Your task to perform on an android device: Open Reddit.com Image 0: 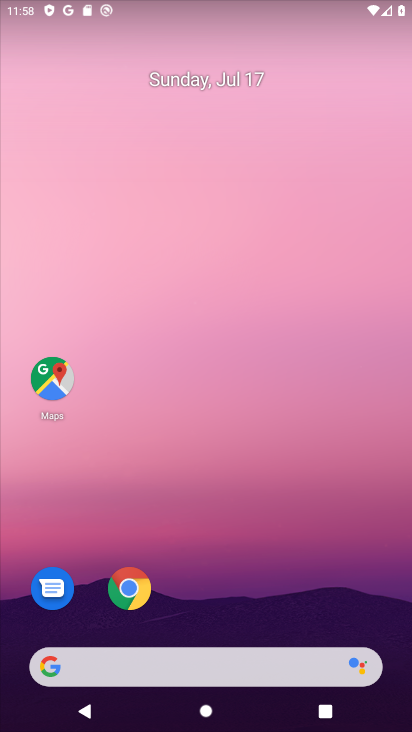
Step 0: click (126, 589)
Your task to perform on an android device: Open Reddit.com Image 1: 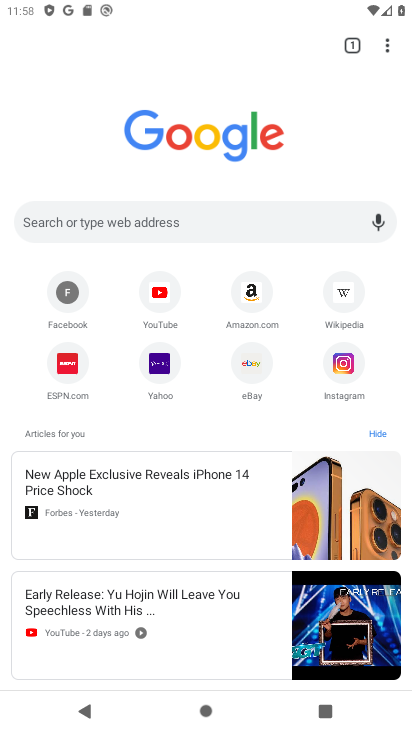
Step 1: click (180, 212)
Your task to perform on an android device: Open Reddit.com Image 2: 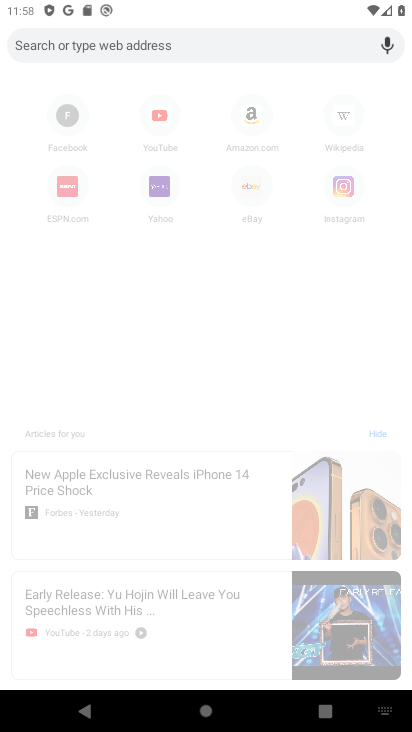
Step 2: type "Reddit.com"
Your task to perform on an android device: Open Reddit.com Image 3: 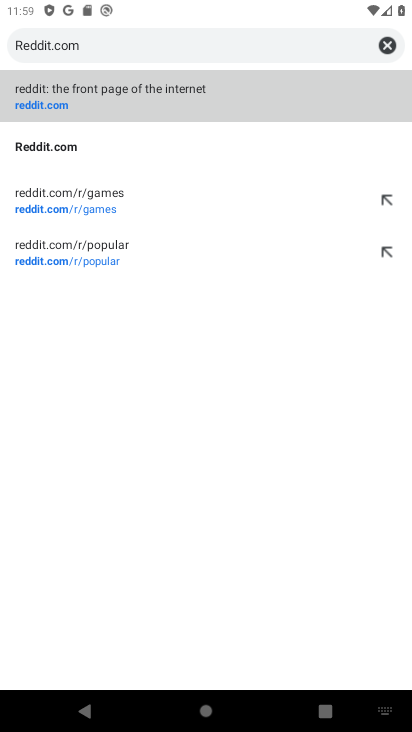
Step 3: click (277, 106)
Your task to perform on an android device: Open Reddit.com Image 4: 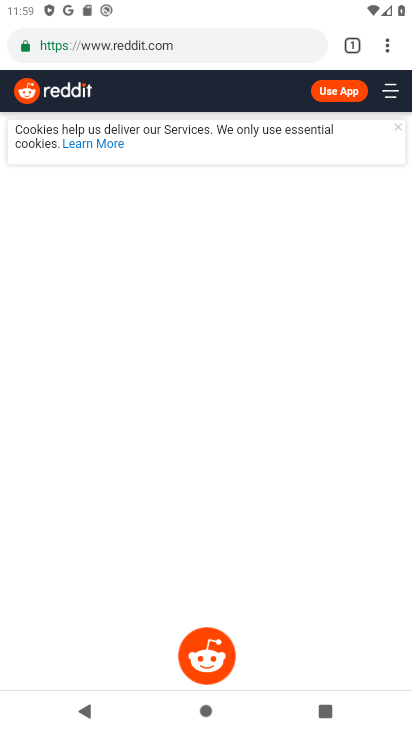
Step 4: task complete